Your task to perform on an android device: Open Google Chrome Image 0: 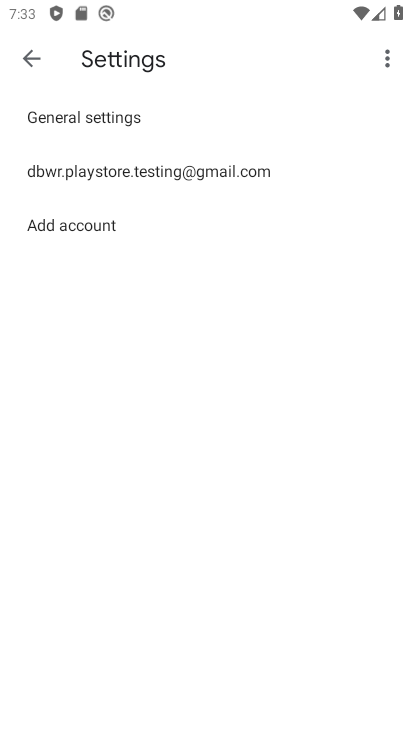
Step 0: press home button
Your task to perform on an android device: Open Google Chrome Image 1: 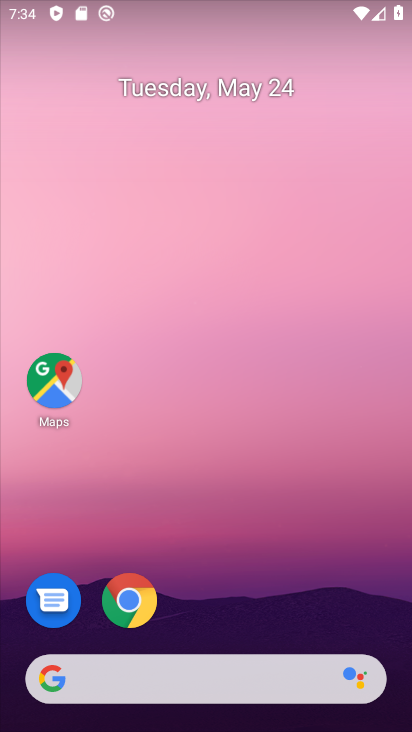
Step 1: drag from (362, 608) to (371, 268)
Your task to perform on an android device: Open Google Chrome Image 2: 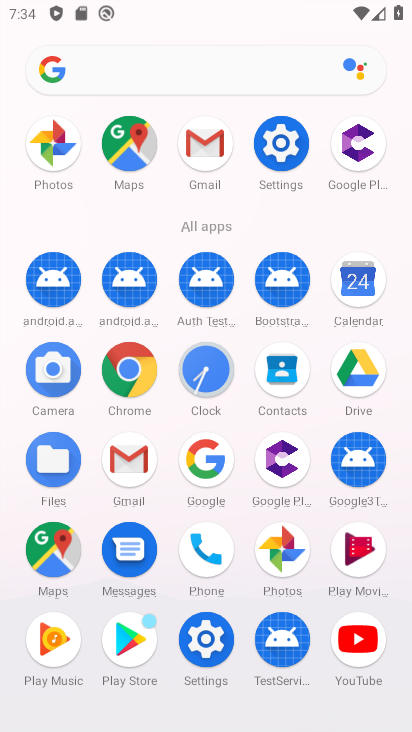
Step 2: click (130, 377)
Your task to perform on an android device: Open Google Chrome Image 3: 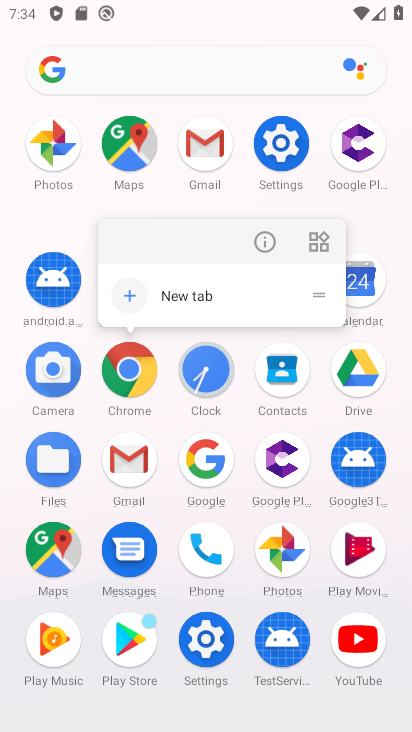
Step 3: click (130, 377)
Your task to perform on an android device: Open Google Chrome Image 4: 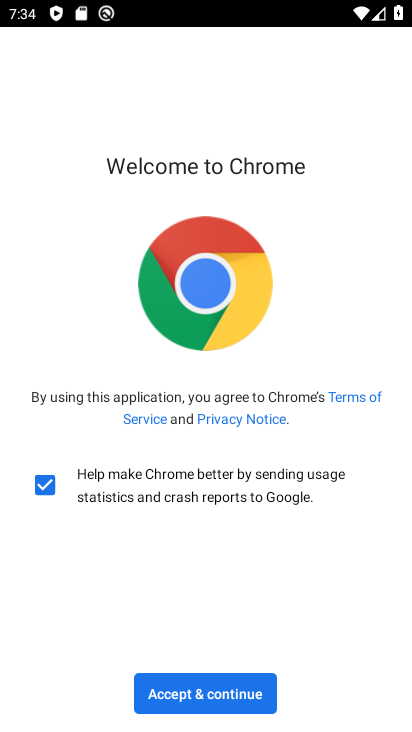
Step 4: click (235, 685)
Your task to perform on an android device: Open Google Chrome Image 5: 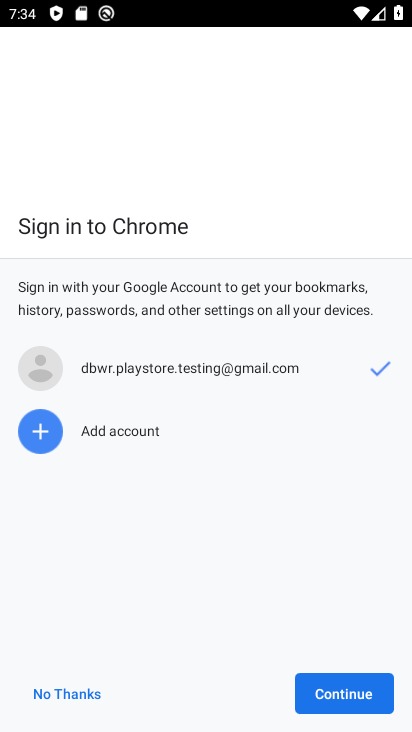
Step 5: click (359, 703)
Your task to perform on an android device: Open Google Chrome Image 6: 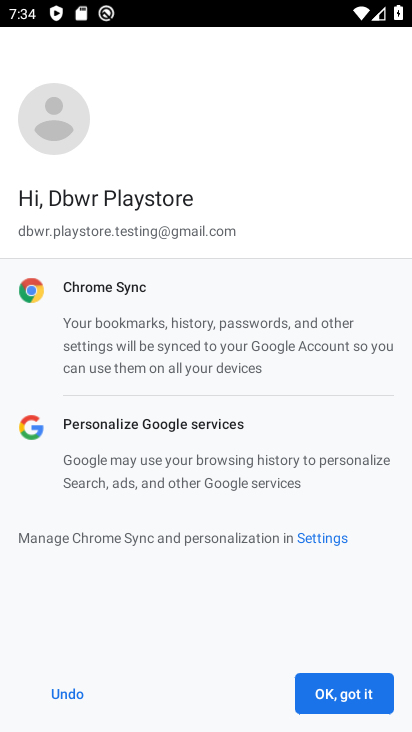
Step 6: click (359, 703)
Your task to perform on an android device: Open Google Chrome Image 7: 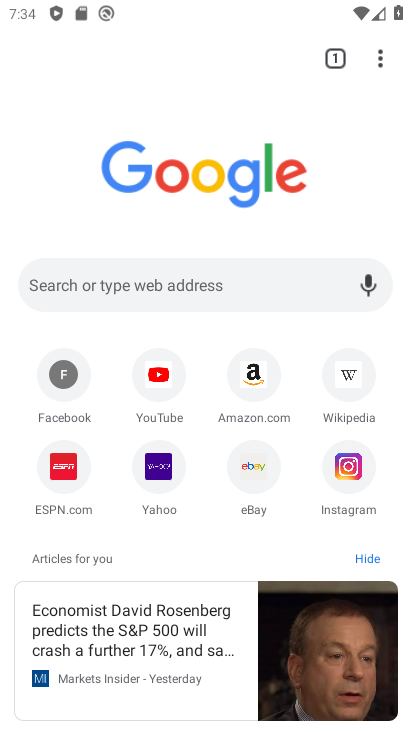
Step 7: task complete